Your task to perform on an android device: turn on translation in the chrome app Image 0: 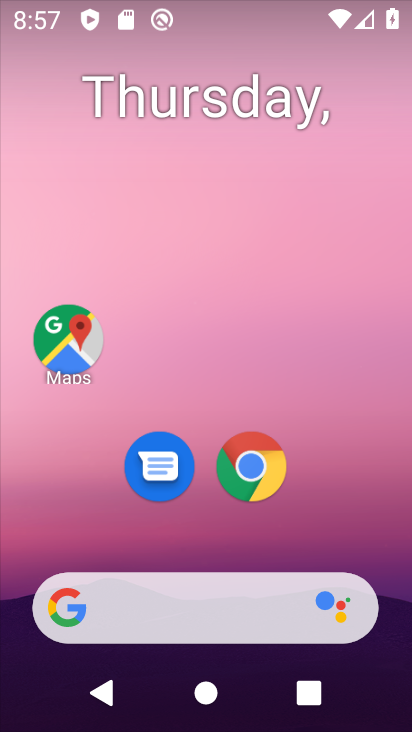
Step 0: press home button
Your task to perform on an android device: turn on translation in the chrome app Image 1: 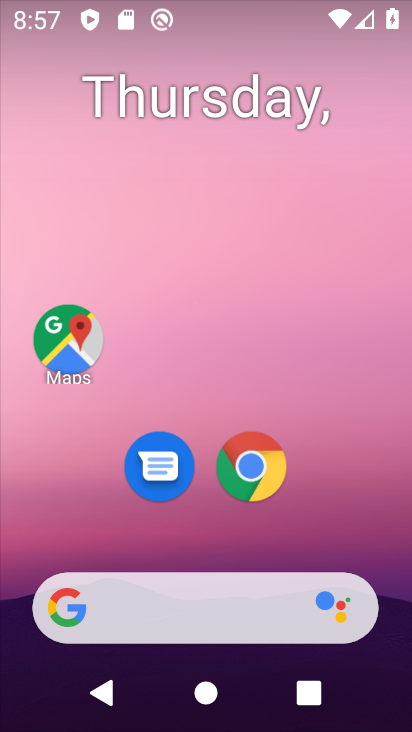
Step 1: click (257, 483)
Your task to perform on an android device: turn on translation in the chrome app Image 2: 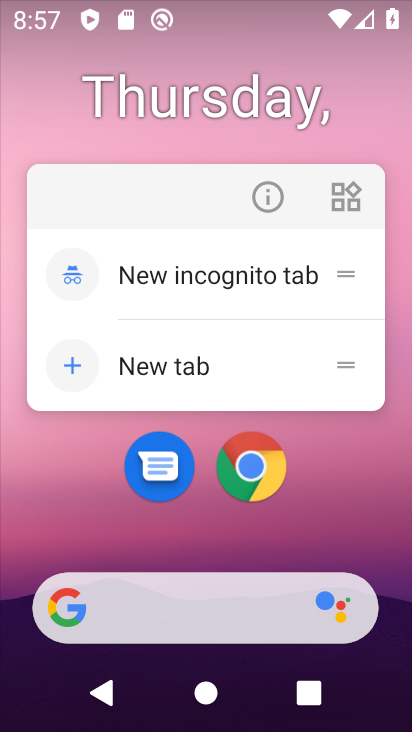
Step 2: click (253, 477)
Your task to perform on an android device: turn on translation in the chrome app Image 3: 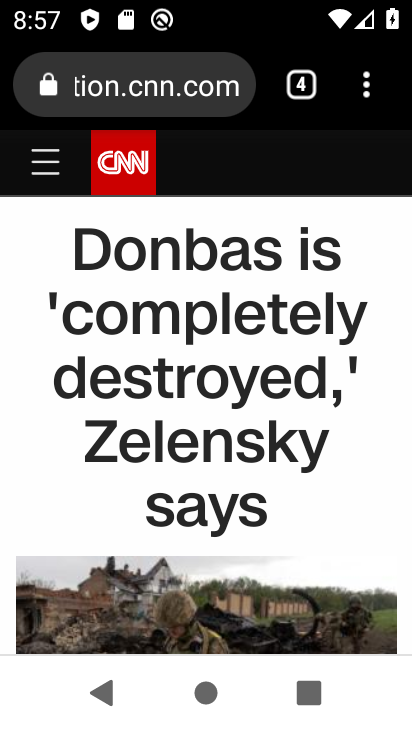
Step 3: drag from (367, 89) to (260, 526)
Your task to perform on an android device: turn on translation in the chrome app Image 4: 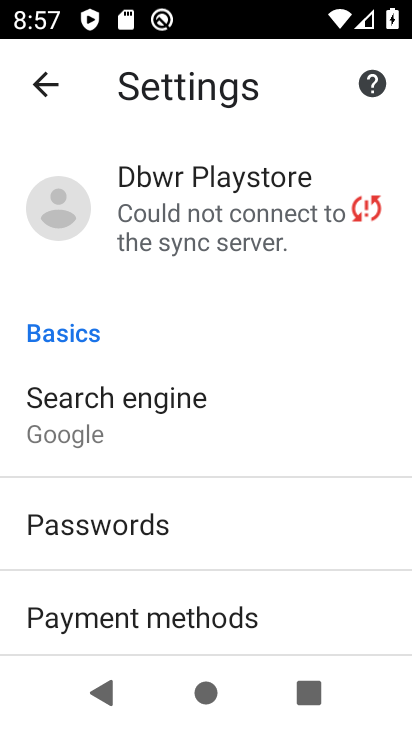
Step 4: drag from (222, 606) to (307, 289)
Your task to perform on an android device: turn on translation in the chrome app Image 5: 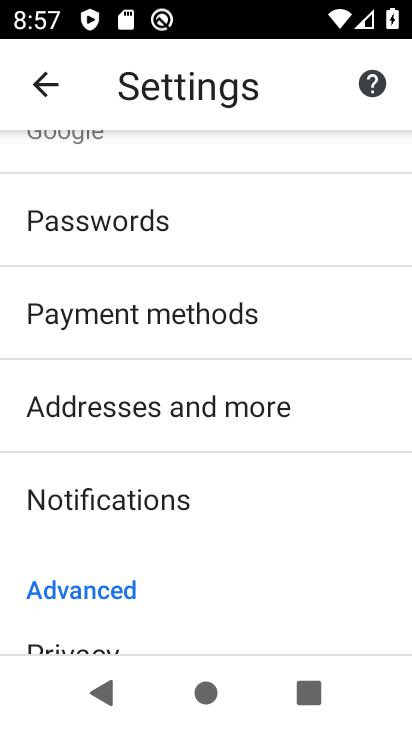
Step 5: drag from (242, 599) to (298, 326)
Your task to perform on an android device: turn on translation in the chrome app Image 6: 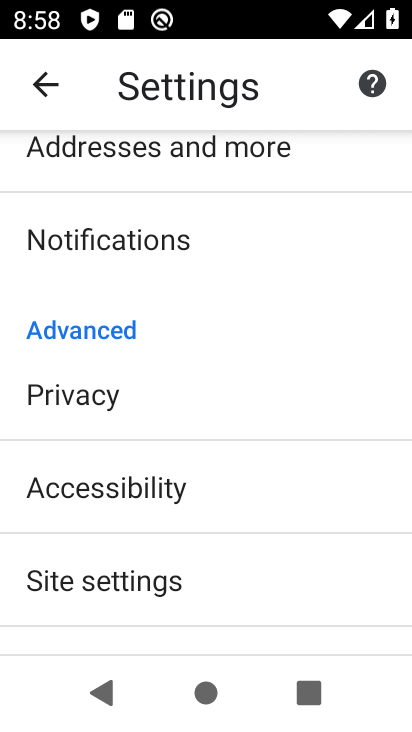
Step 6: drag from (216, 593) to (308, 302)
Your task to perform on an android device: turn on translation in the chrome app Image 7: 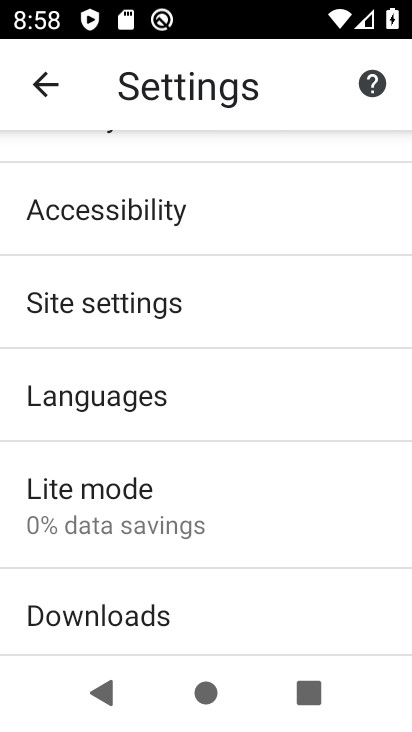
Step 7: click (120, 399)
Your task to perform on an android device: turn on translation in the chrome app Image 8: 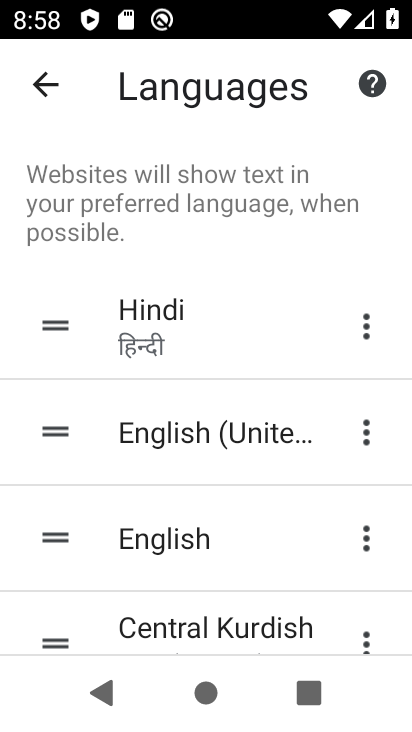
Step 8: drag from (286, 624) to (337, 200)
Your task to perform on an android device: turn on translation in the chrome app Image 9: 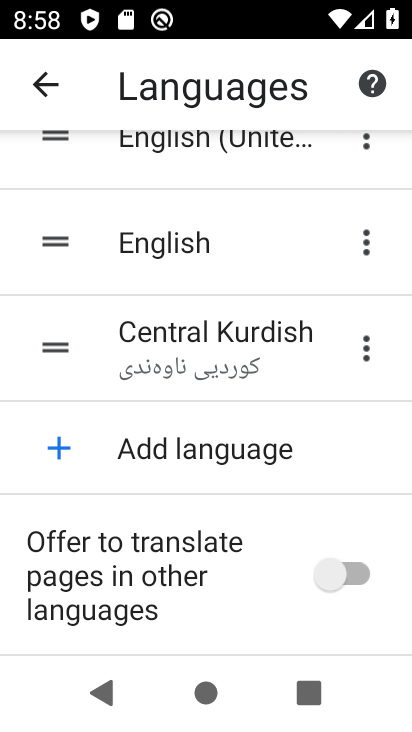
Step 9: click (352, 576)
Your task to perform on an android device: turn on translation in the chrome app Image 10: 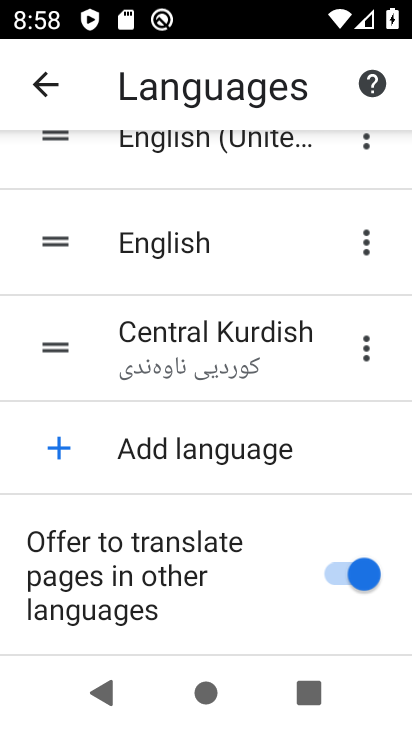
Step 10: task complete